Your task to perform on an android device: turn off sleep mode Image 0: 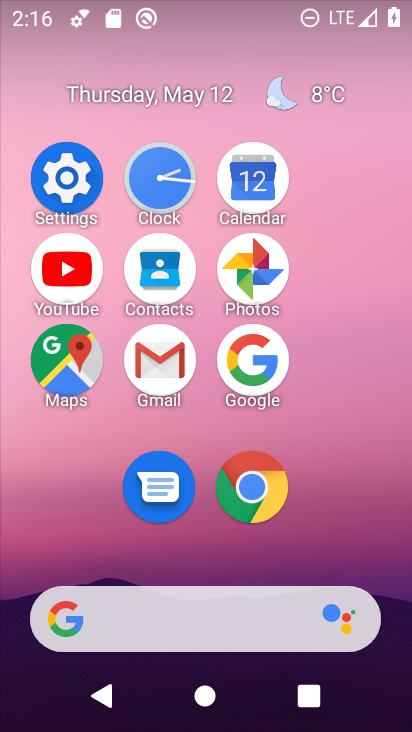
Step 0: click (72, 174)
Your task to perform on an android device: turn off sleep mode Image 1: 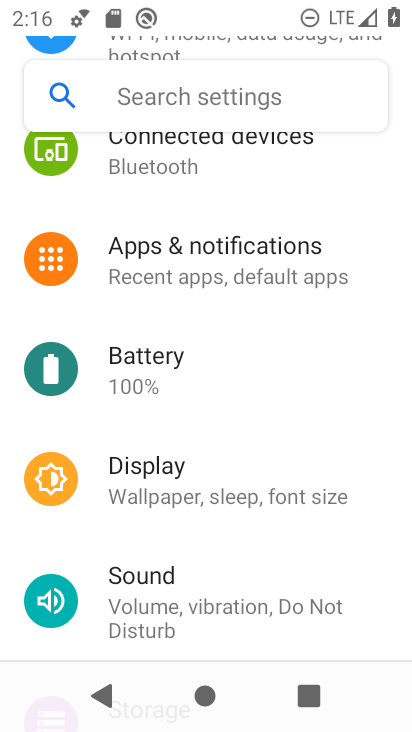
Step 1: drag from (253, 599) to (252, 316)
Your task to perform on an android device: turn off sleep mode Image 2: 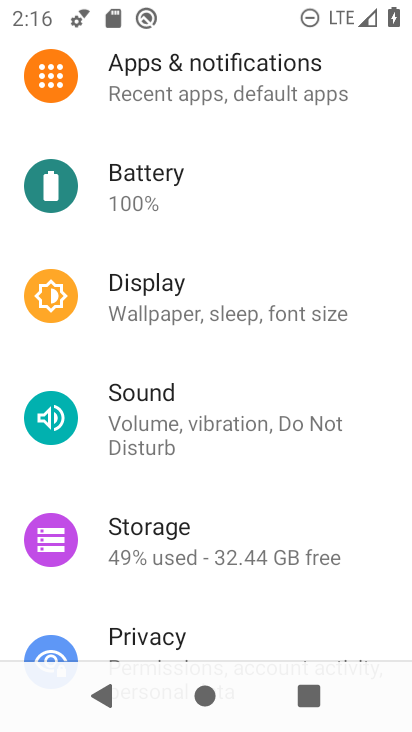
Step 2: drag from (297, 498) to (279, 408)
Your task to perform on an android device: turn off sleep mode Image 3: 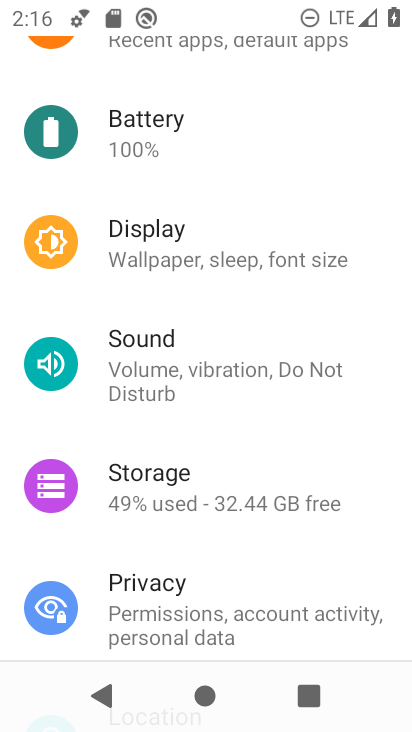
Step 3: click (217, 274)
Your task to perform on an android device: turn off sleep mode Image 4: 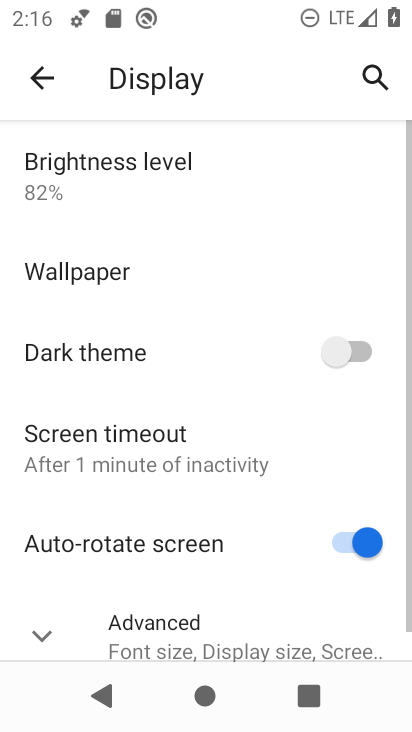
Step 4: click (231, 466)
Your task to perform on an android device: turn off sleep mode Image 5: 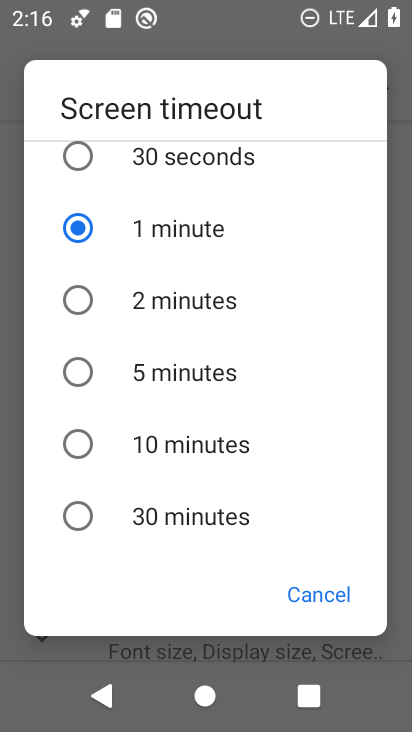
Step 5: task complete